Your task to perform on an android device: find which apps use the phone's location Image 0: 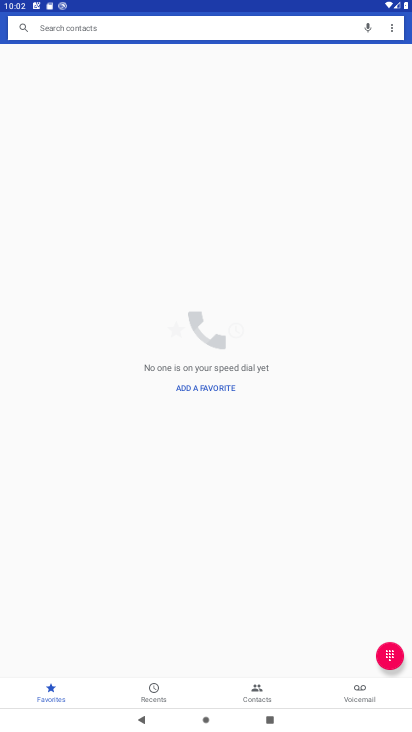
Step 0: press home button
Your task to perform on an android device: find which apps use the phone's location Image 1: 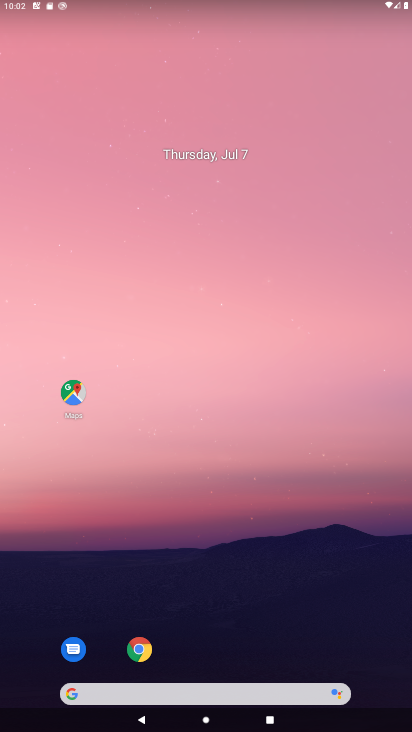
Step 1: drag from (249, 642) to (194, 171)
Your task to perform on an android device: find which apps use the phone's location Image 2: 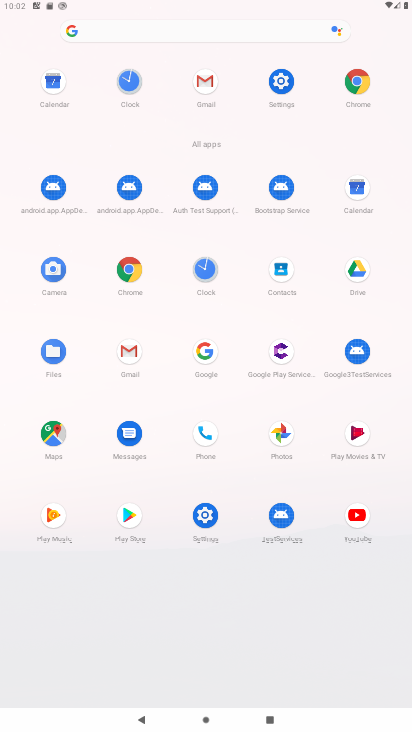
Step 2: click (286, 87)
Your task to perform on an android device: find which apps use the phone's location Image 3: 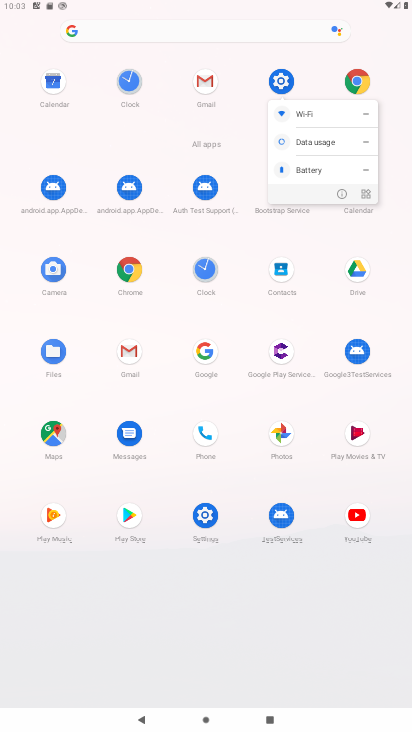
Step 3: click (277, 84)
Your task to perform on an android device: find which apps use the phone's location Image 4: 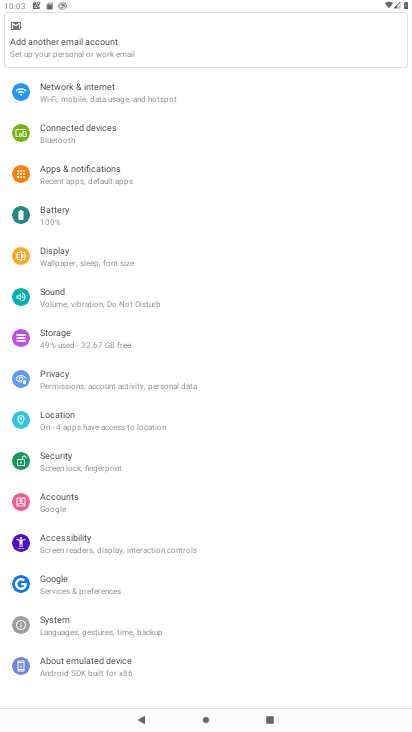
Step 4: click (92, 429)
Your task to perform on an android device: find which apps use the phone's location Image 5: 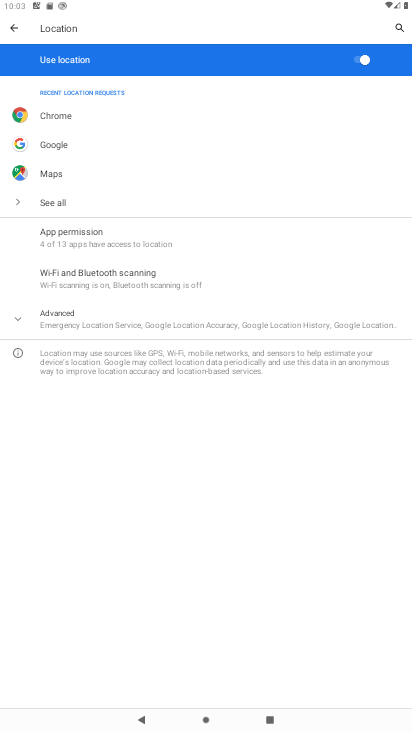
Step 5: click (278, 238)
Your task to perform on an android device: find which apps use the phone's location Image 6: 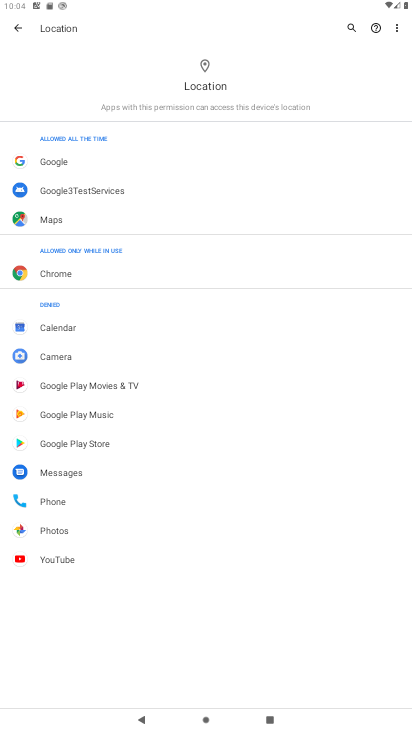
Step 6: task complete